Your task to perform on an android device: allow cookies in the chrome app Image 0: 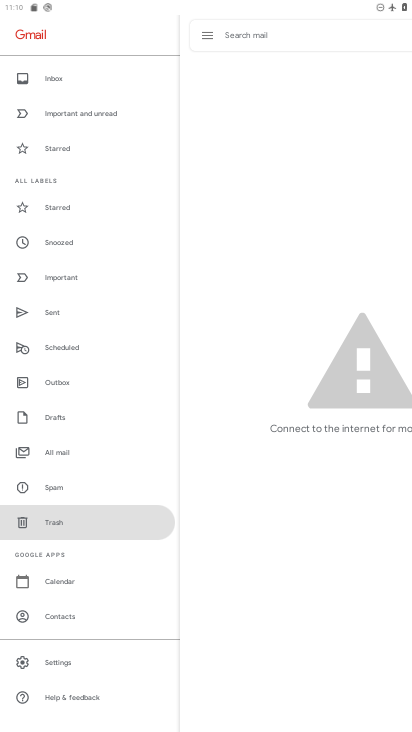
Step 0: press home button
Your task to perform on an android device: allow cookies in the chrome app Image 1: 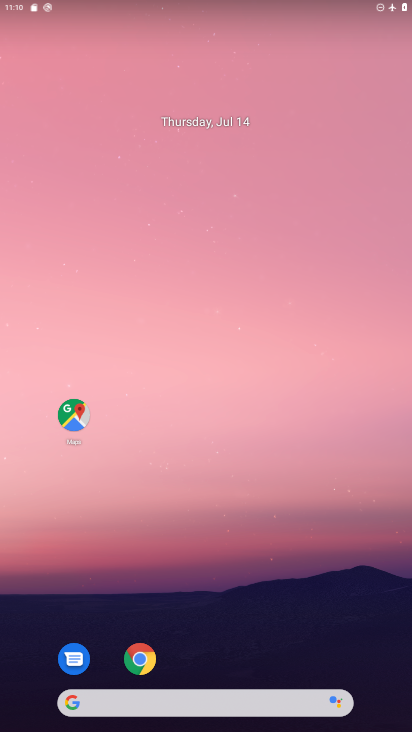
Step 1: click (140, 656)
Your task to perform on an android device: allow cookies in the chrome app Image 2: 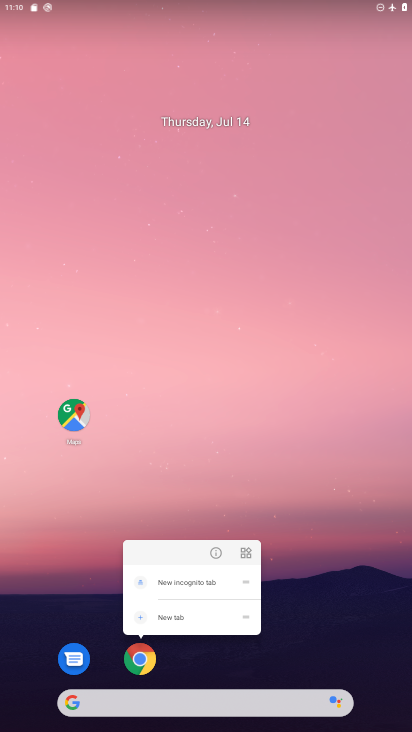
Step 2: click (137, 656)
Your task to perform on an android device: allow cookies in the chrome app Image 3: 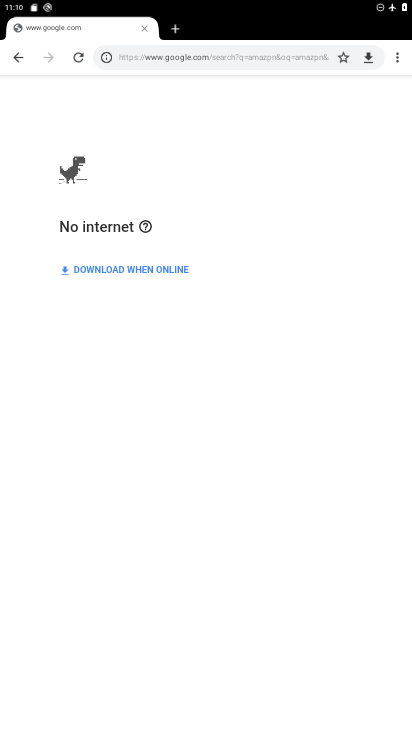
Step 3: drag from (390, 54) to (280, 352)
Your task to perform on an android device: allow cookies in the chrome app Image 4: 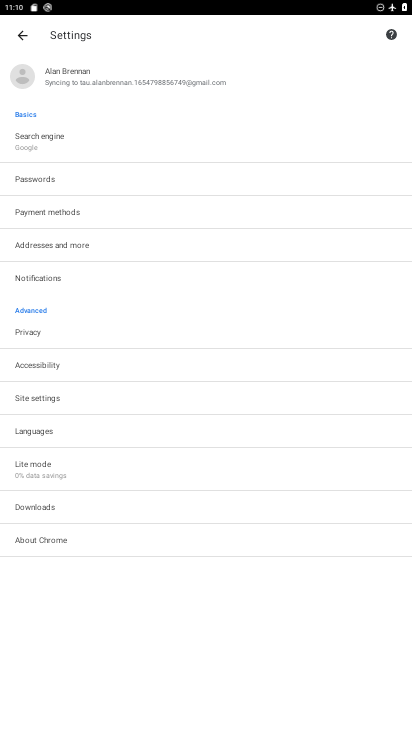
Step 4: click (36, 402)
Your task to perform on an android device: allow cookies in the chrome app Image 5: 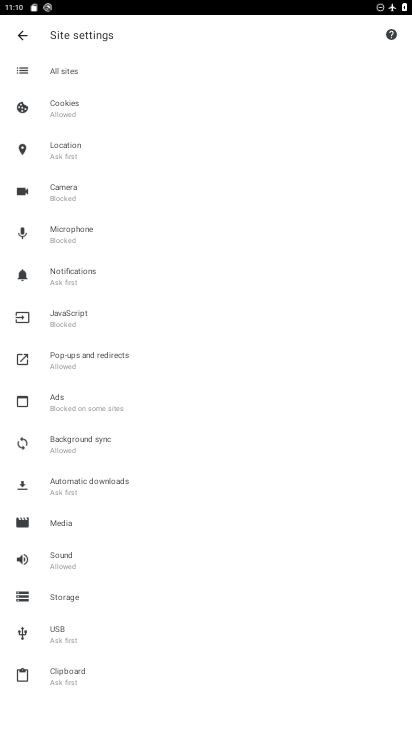
Step 5: click (69, 105)
Your task to perform on an android device: allow cookies in the chrome app Image 6: 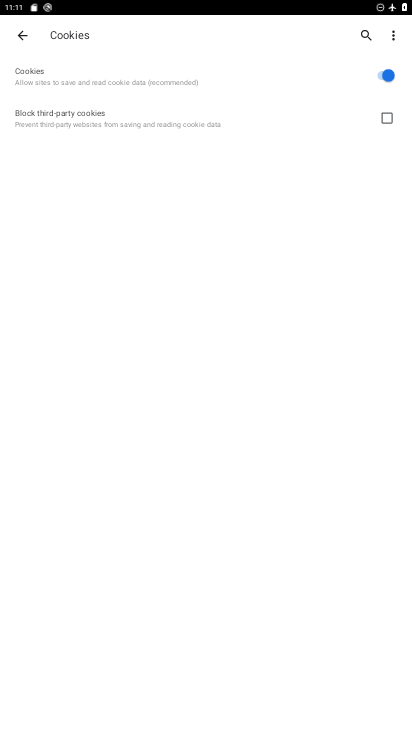
Step 6: task complete